Your task to perform on an android device: Go to Wikipedia Image 0: 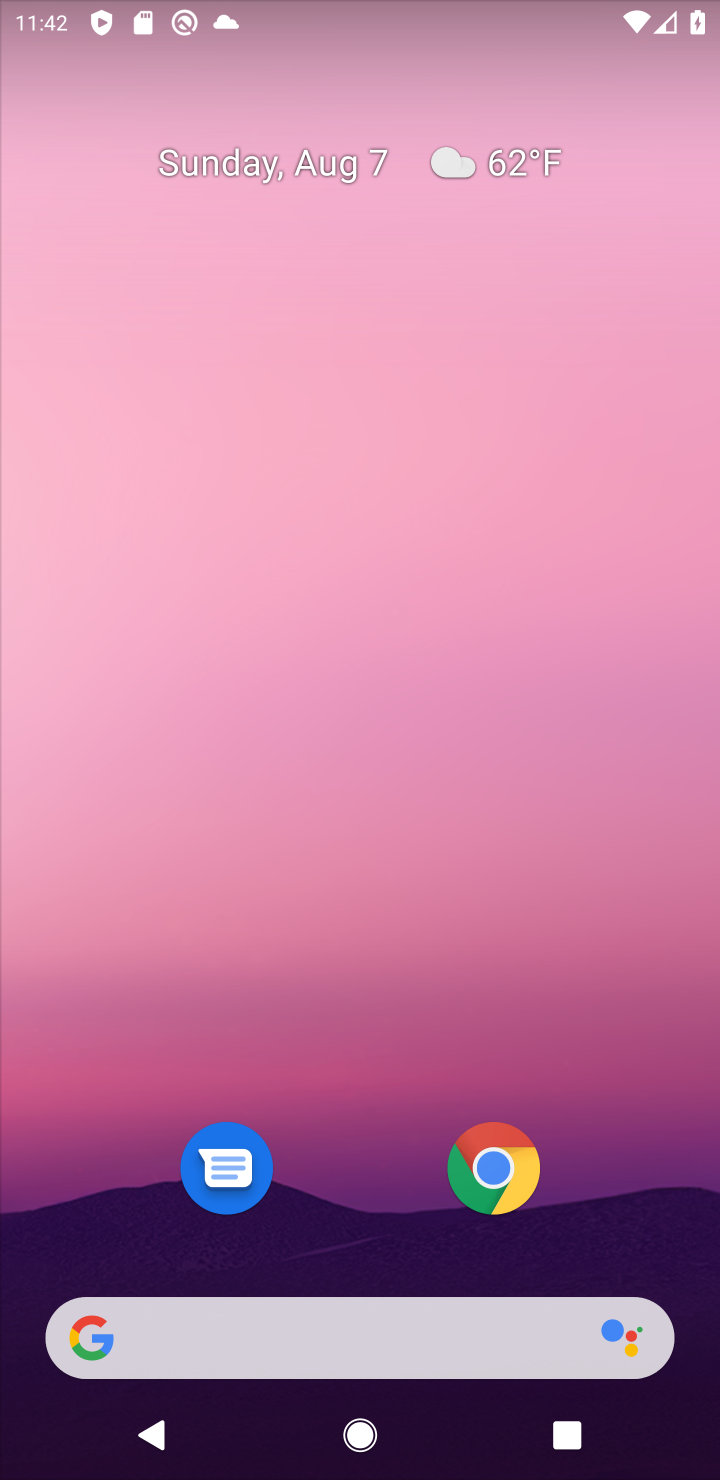
Step 0: click (88, 1335)
Your task to perform on an android device: Go to Wikipedia Image 1: 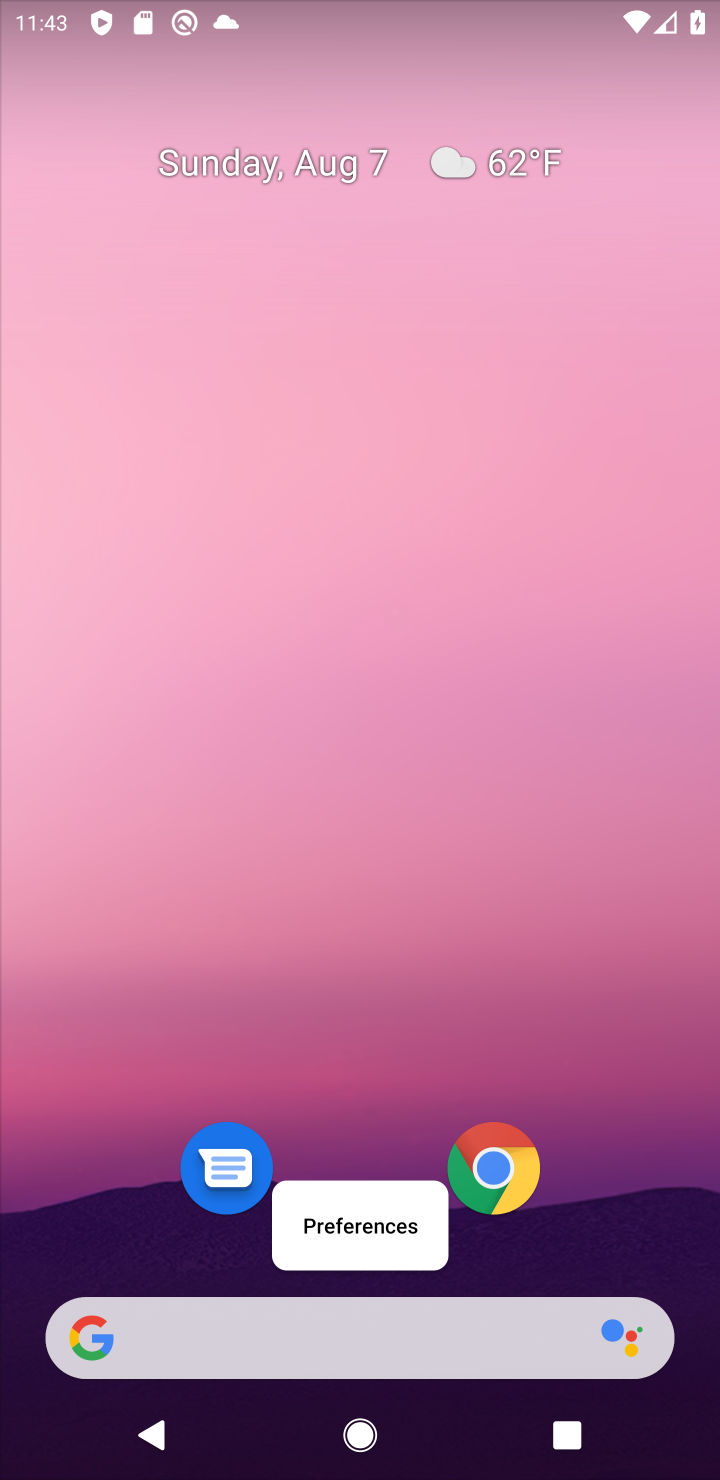
Step 1: click (74, 1322)
Your task to perform on an android device: Go to Wikipedia Image 2: 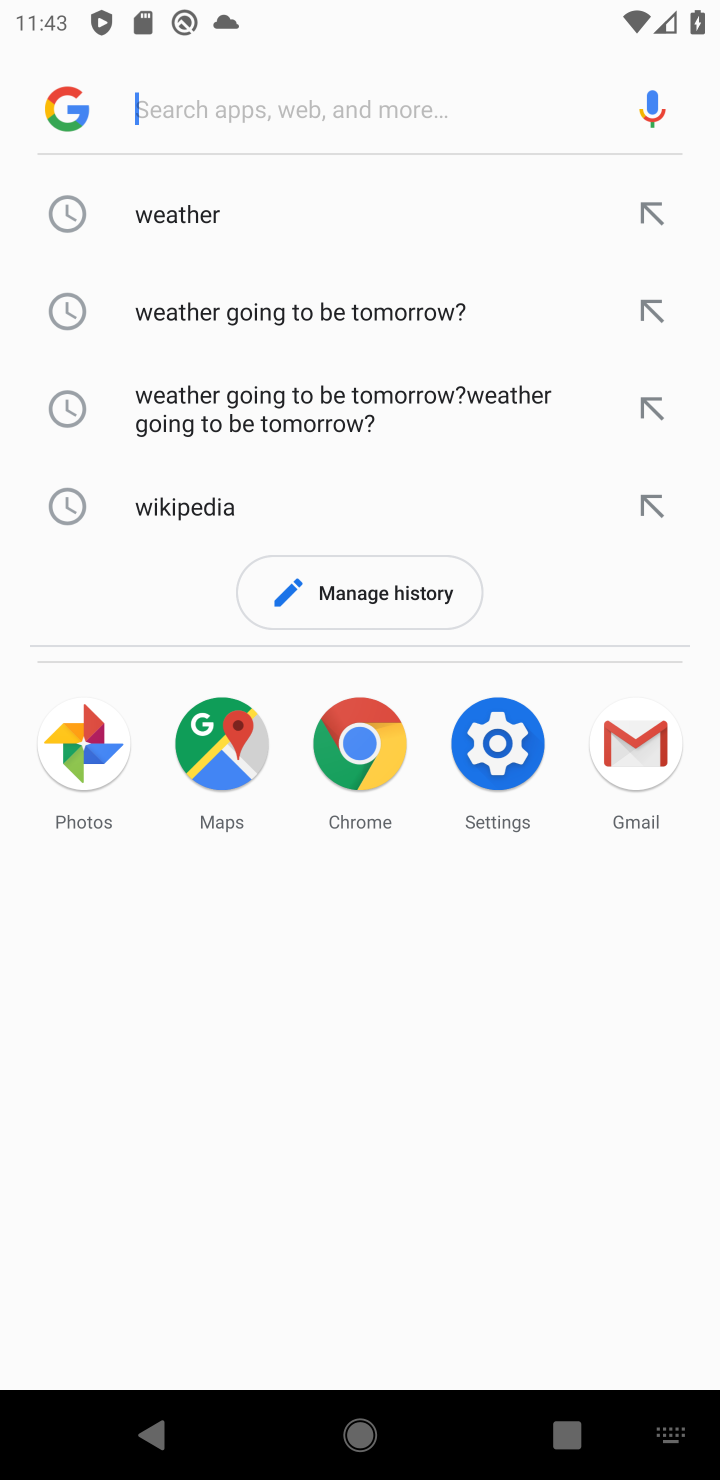
Step 2: click (184, 511)
Your task to perform on an android device: Go to Wikipedia Image 3: 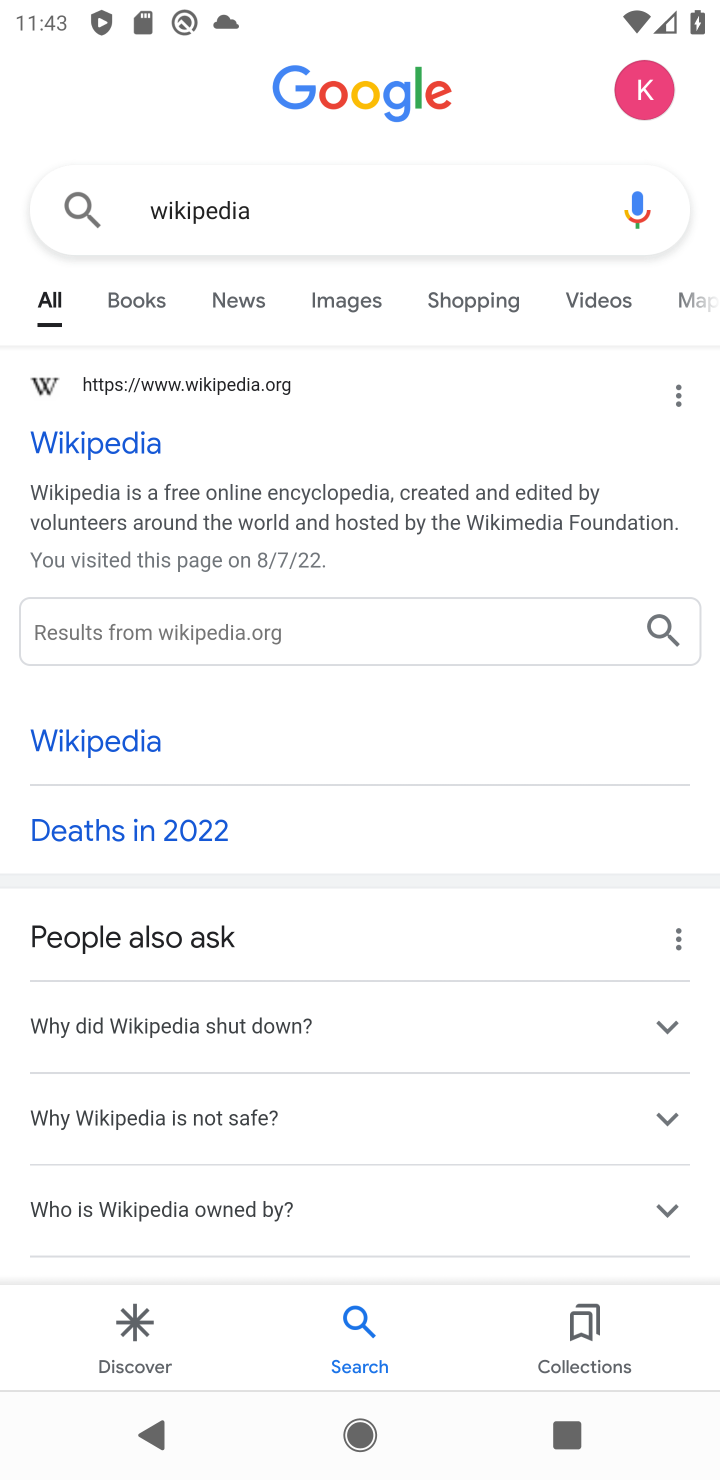
Step 3: click (88, 445)
Your task to perform on an android device: Go to Wikipedia Image 4: 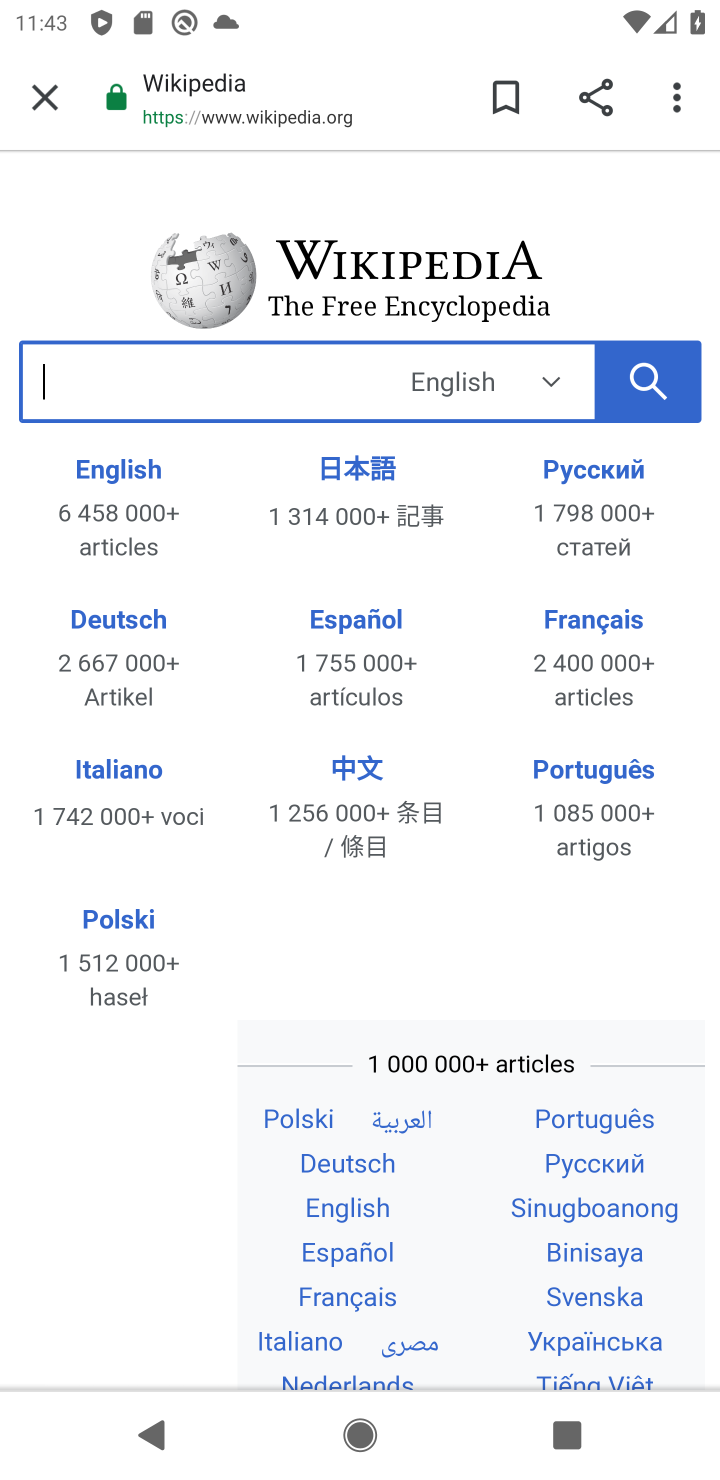
Step 4: task complete